Your task to perform on an android device: Open the phone app and click the voicemail tab. Image 0: 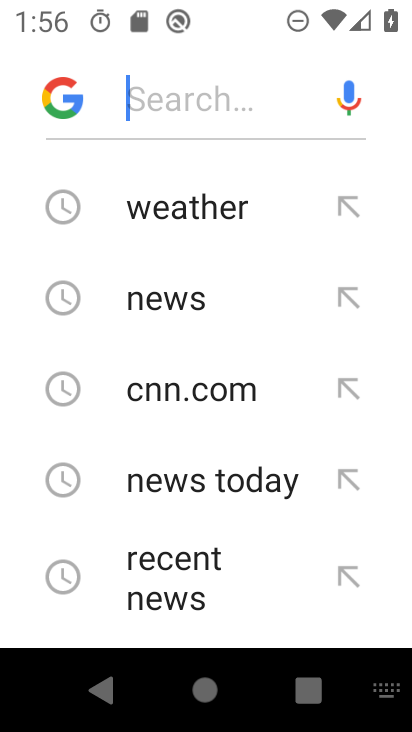
Step 0: press home button
Your task to perform on an android device: Open the phone app and click the voicemail tab. Image 1: 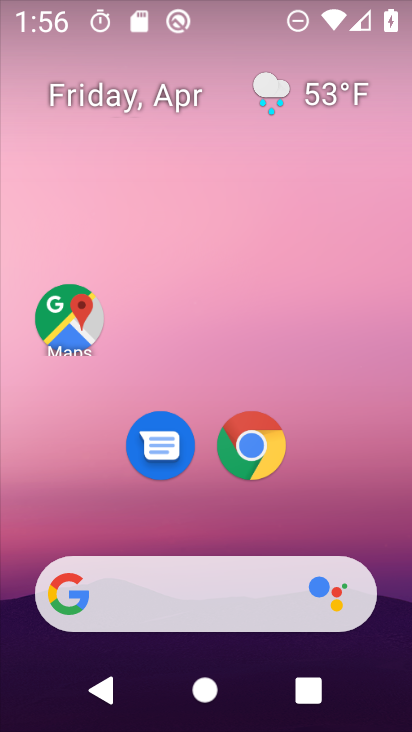
Step 1: drag from (367, 498) to (356, 158)
Your task to perform on an android device: Open the phone app and click the voicemail tab. Image 2: 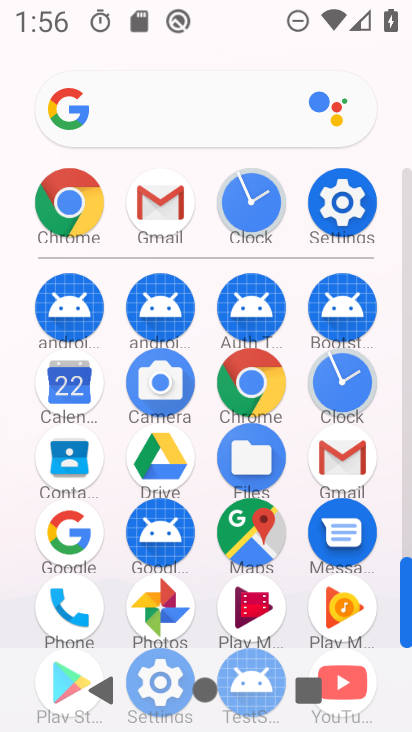
Step 2: drag from (396, 505) to (395, 278)
Your task to perform on an android device: Open the phone app and click the voicemail tab. Image 3: 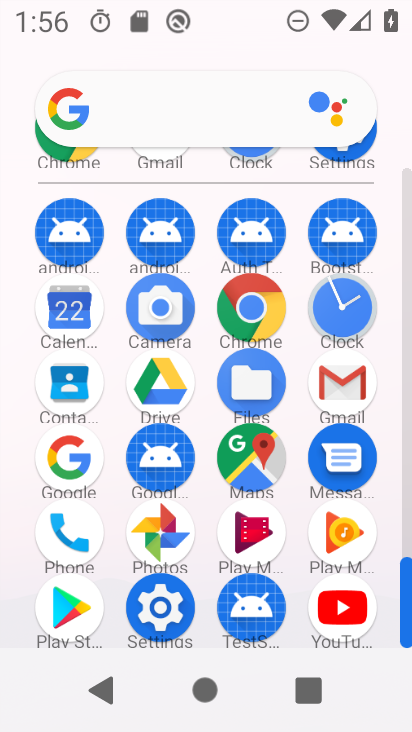
Step 3: click (67, 539)
Your task to perform on an android device: Open the phone app and click the voicemail tab. Image 4: 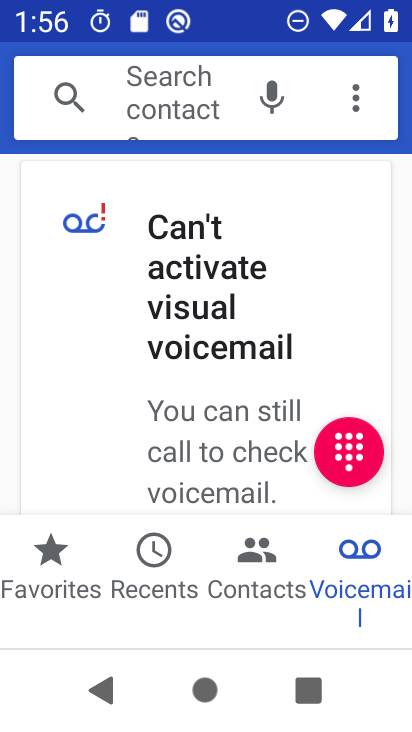
Step 4: task complete